Your task to perform on an android device: Go to internet settings Image 0: 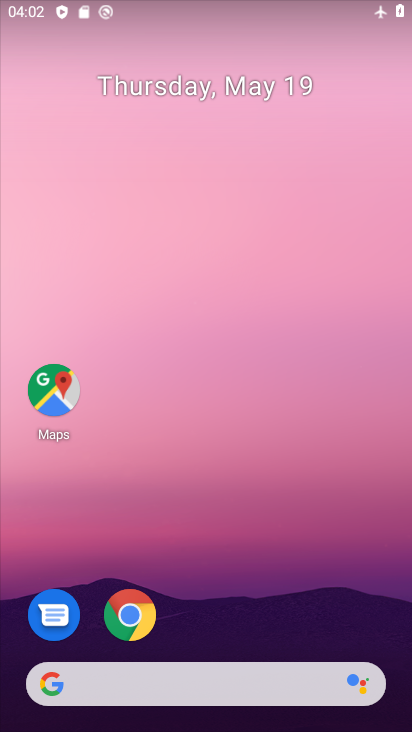
Step 0: drag from (268, 633) to (410, 149)
Your task to perform on an android device: Go to internet settings Image 1: 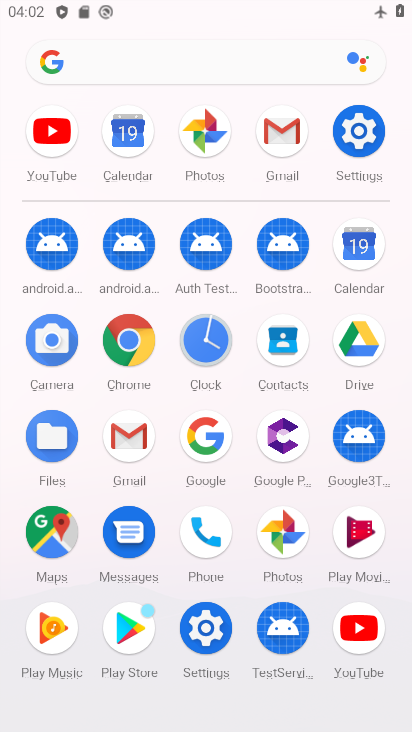
Step 1: click (362, 129)
Your task to perform on an android device: Go to internet settings Image 2: 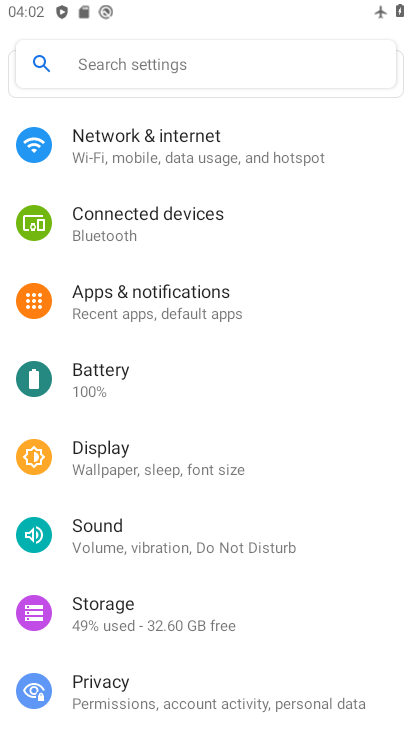
Step 2: click (141, 158)
Your task to perform on an android device: Go to internet settings Image 3: 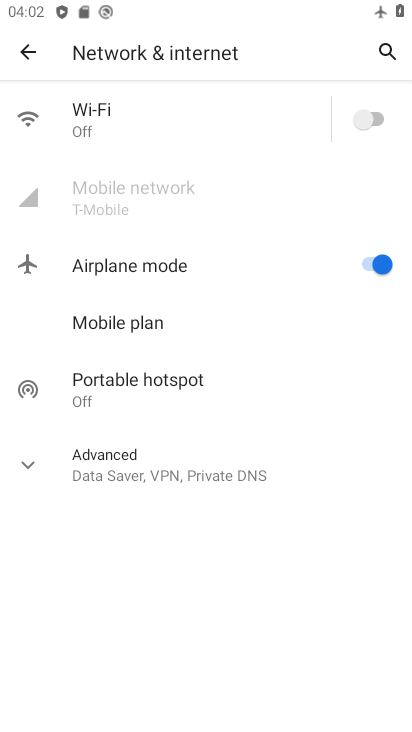
Step 3: task complete